Your task to perform on an android device: change the clock display to show seconds Image 0: 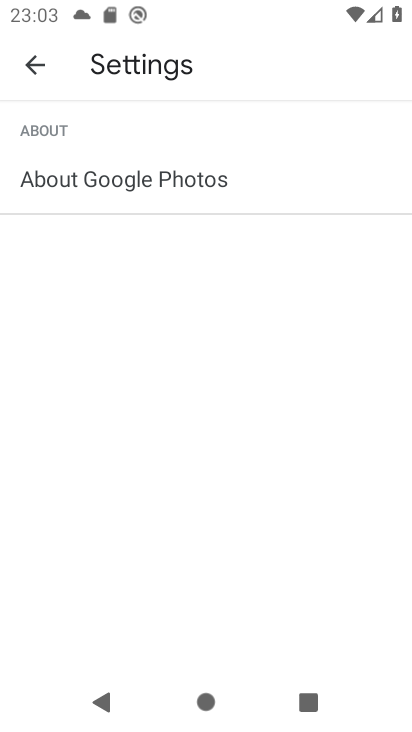
Step 0: press home button
Your task to perform on an android device: change the clock display to show seconds Image 1: 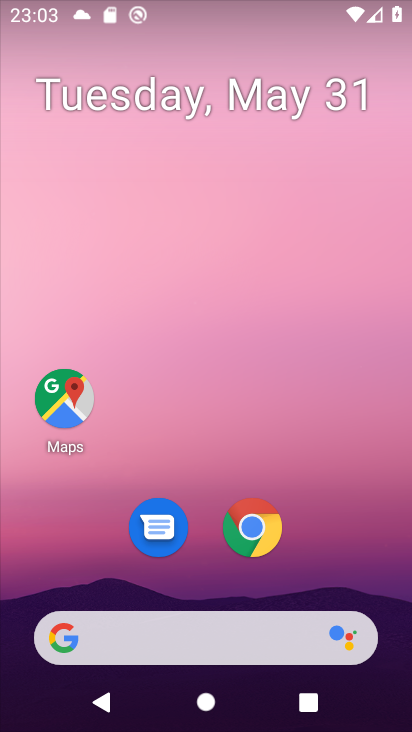
Step 1: drag from (343, 490) to (222, 9)
Your task to perform on an android device: change the clock display to show seconds Image 2: 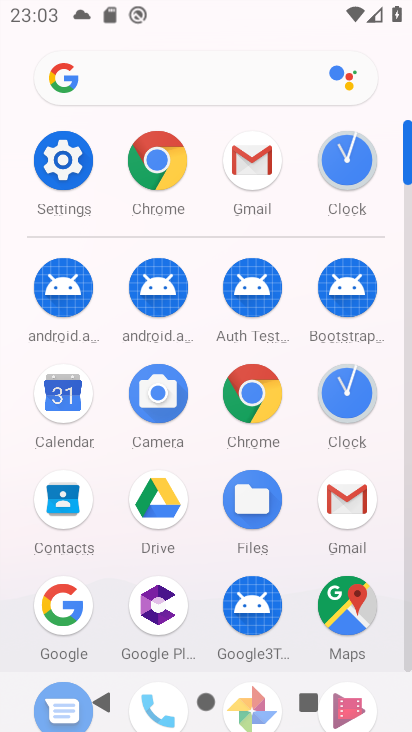
Step 2: click (340, 173)
Your task to perform on an android device: change the clock display to show seconds Image 3: 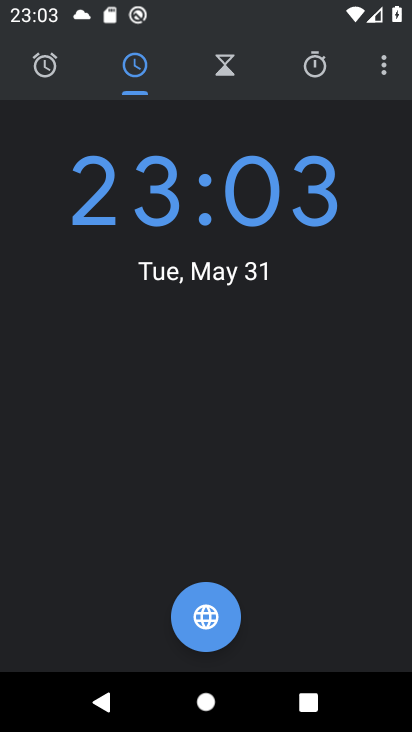
Step 3: click (380, 76)
Your task to perform on an android device: change the clock display to show seconds Image 4: 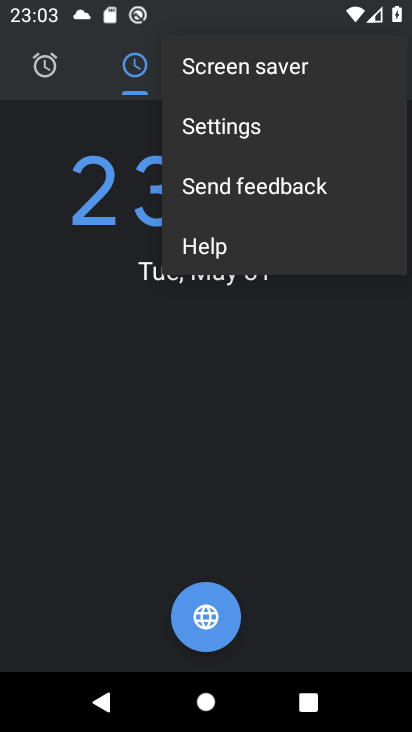
Step 4: click (233, 140)
Your task to perform on an android device: change the clock display to show seconds Image 5: 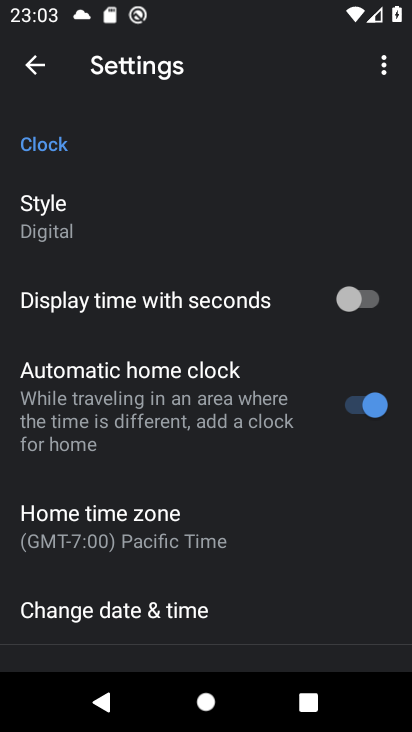
Step 5: click (342, 300)
Your task to perform on an android device: change the clock display to show seconds Image 6: 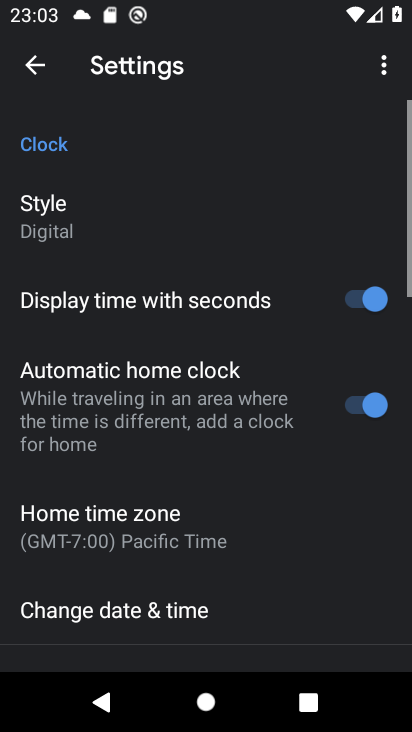
Step 6: task complete